Your task to perform on an android device: turn smart compose on in the gmail app Image 0: 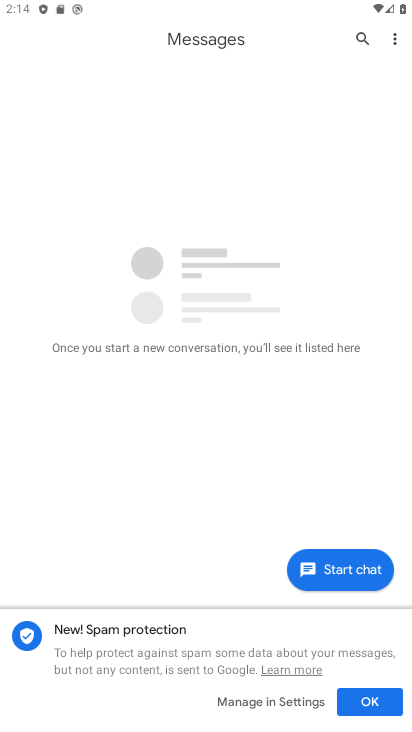
Step 0: press home button
Your task to perform on an android device: turn smart compose on in the gmail app Image 1: 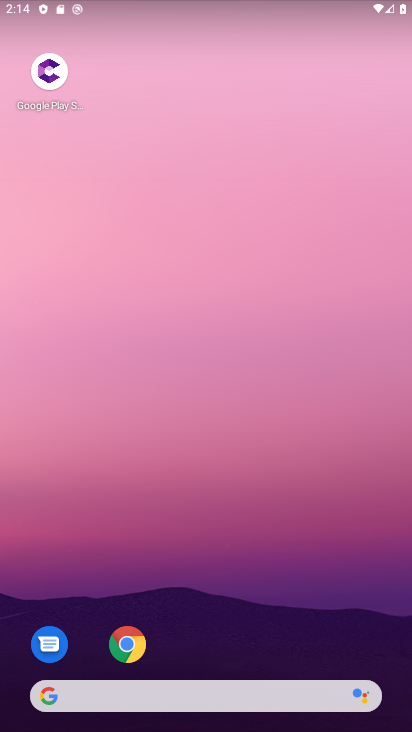
Step 1: drag from (308, 638) to (218, 80)
Your task to perform on an android device: turn smart compose on in the gmail app Image 2: 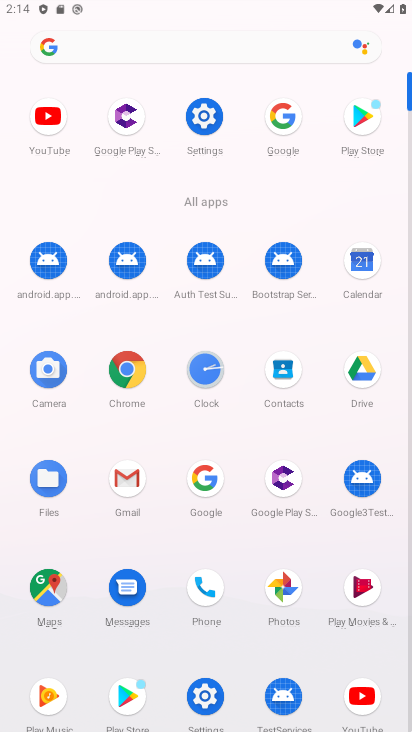
Step 2: click (120, 477)
Your task to perform on an android device: turn smart compose on in the gmail app Image 3: 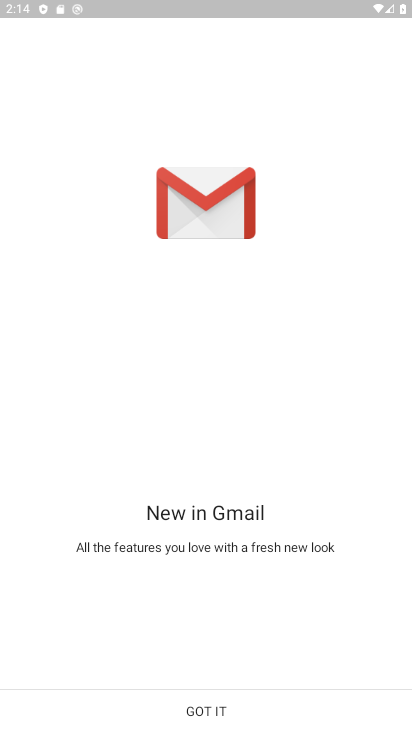
Step 3: click (217, 708)
Your task to perform on an android device: turn smart compose on in the gmail app Image 4: 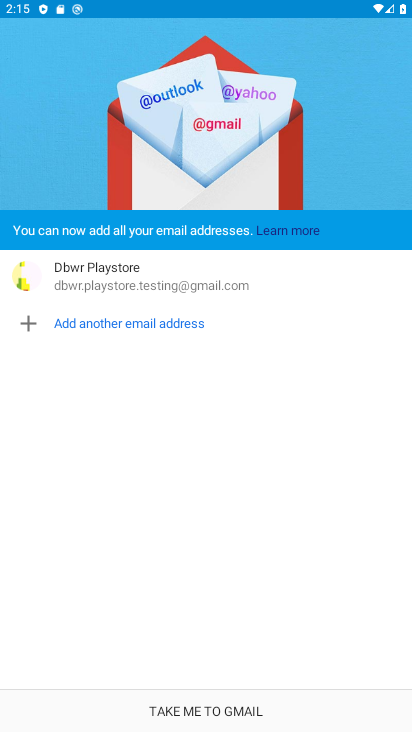
Step 4: click (207, 698)
Your task to perform on an android device: turn smart compose on in the gmail app Image 5: 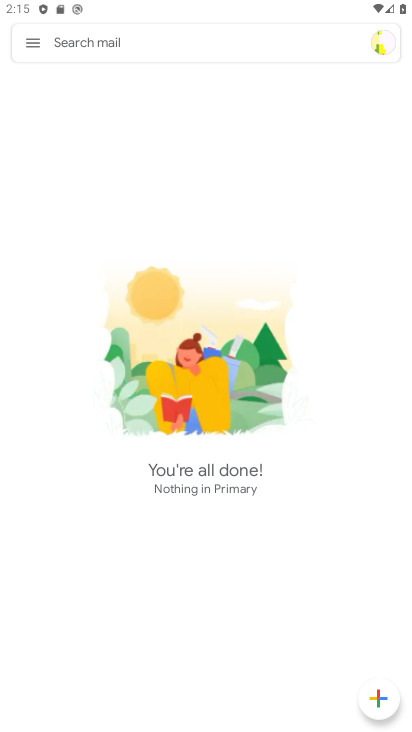
Step 5: click (26, 39)
Your task to perform on an android device: turn smart compose on in the gmail app Image 6: 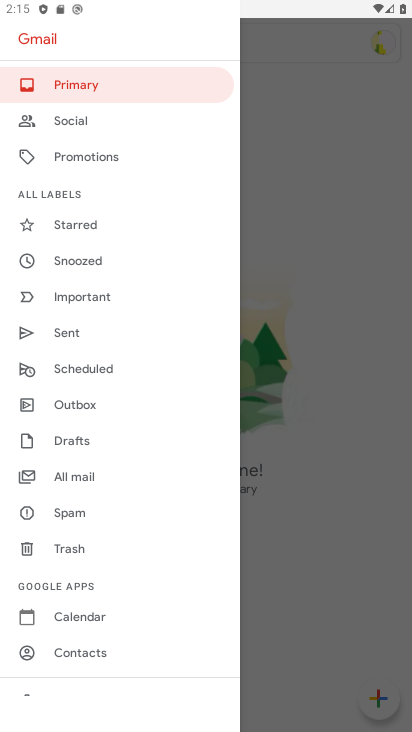
Step 6: drag from (114, 626) to (94, 348)
Your task to perform on an android device: turn smart compose on in the gmail app Image 7: 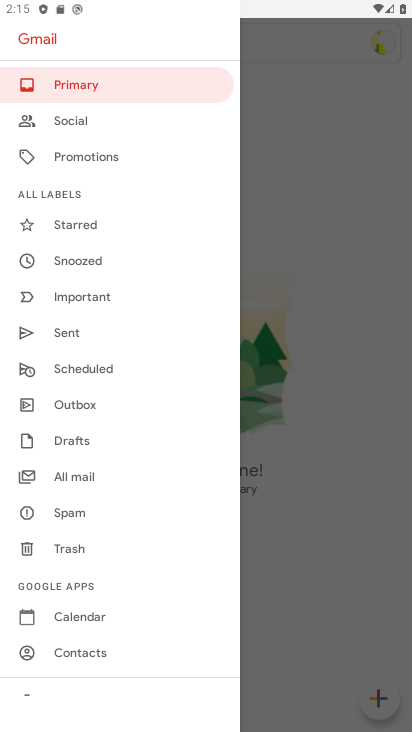
Step 7: drag from (94, 649) to (70, 354)
Your task to perform on an android device: turn smart compose on in the gmail app Image 8: 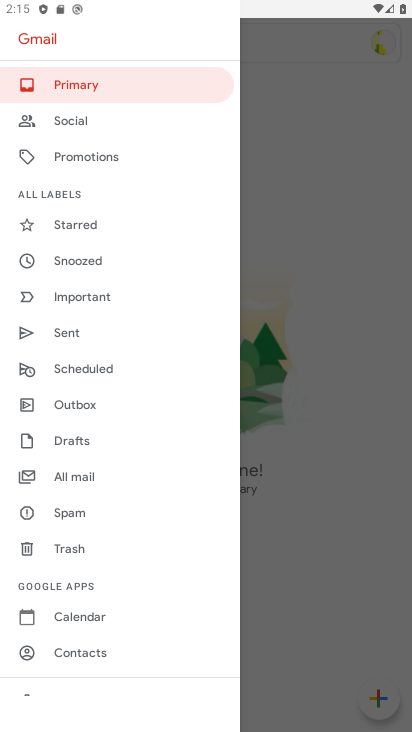
Step 8: drag from (93, 629) to (79, 228)
Your task to perform on an android device: turn smart compose on in the gmail app Image 9: 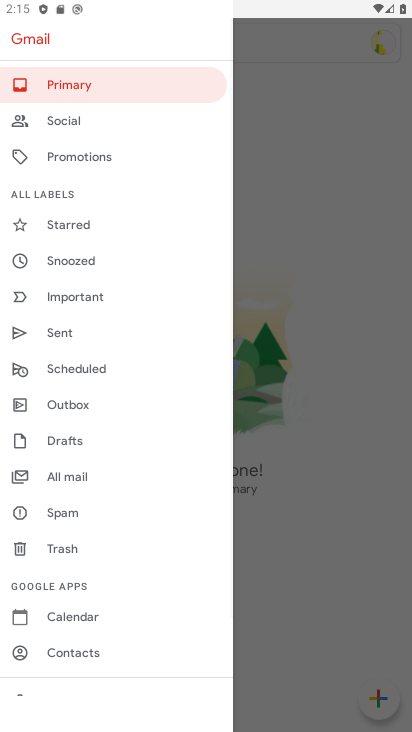
Step 9: drag from (112, 464) to (130, 237)
Your task to perform on an android device: turn smart compose on in the gmail app Image 10: 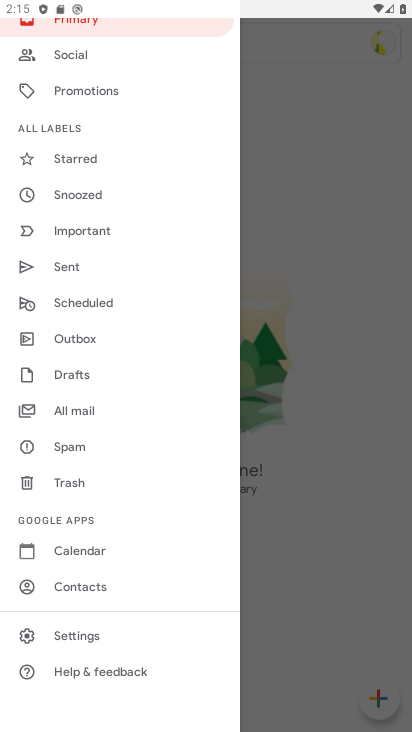
Step 10: click (86, 638)
Your task to perform on an android device: turn smart compose on in the gmail app Image 11: 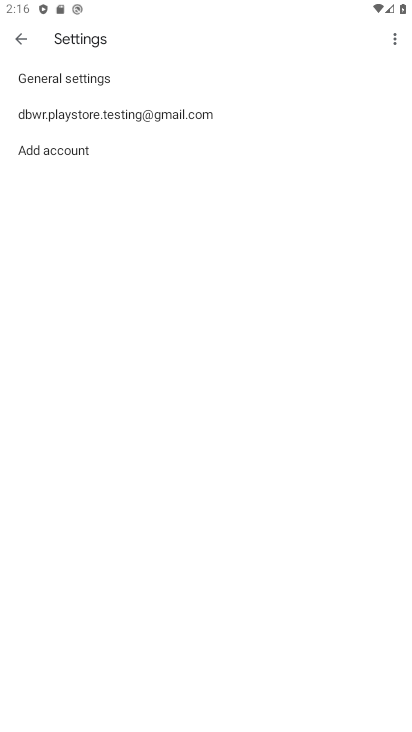
Step 11: click (135, 112)
Your task to perform on an android device: turn smart compose on in the gmail app Image 12: 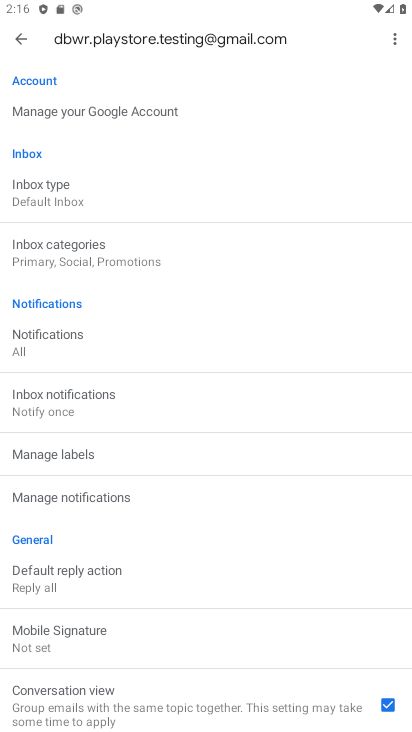
Step 12: task complete